Your task to perform on an android device: manage bookmarks in the chrome app Image 0: 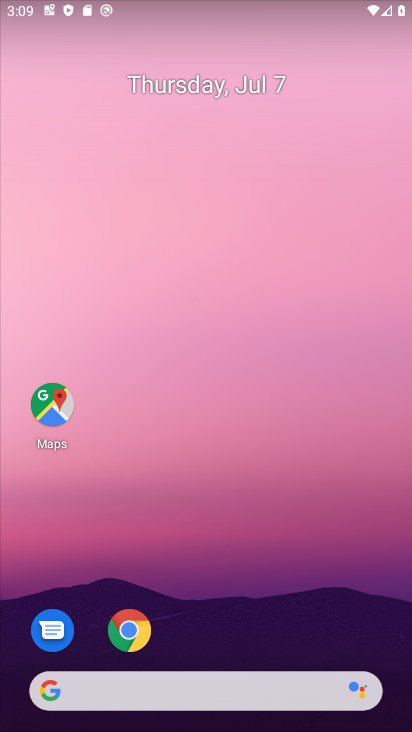
Step 0: click (132, 636)
Your task to perform on an android device: manage bookmarks in the chrome app Image 1: 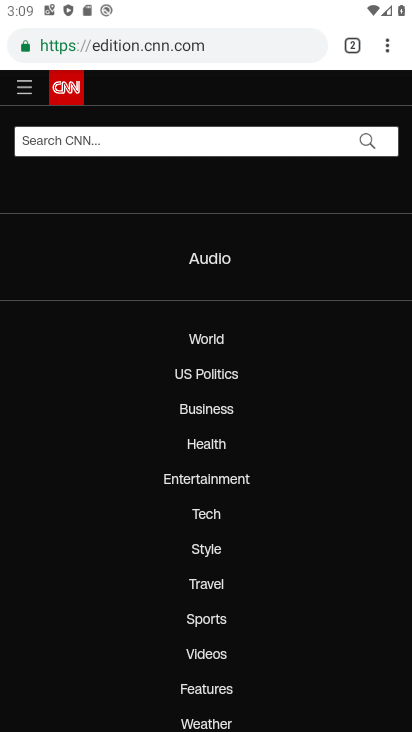
Step 1: click (383, 49)
Your task to perform on an android device: manage bookmarks in the chrome app Image 2: 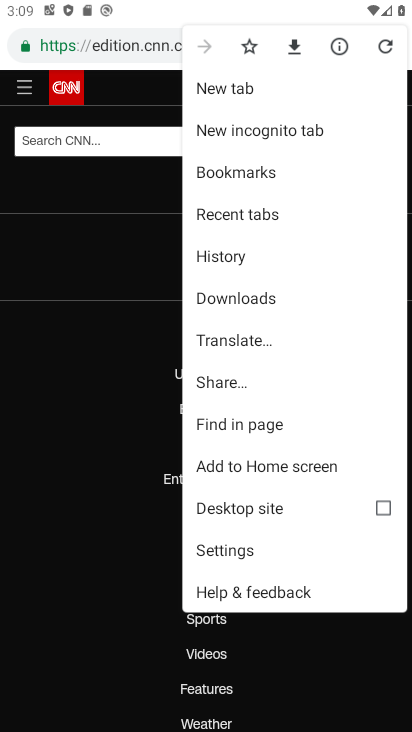
Step 2: click (249, 178)
Your task to perform on an android device: manage bookmarks in the chrome app Image 3: 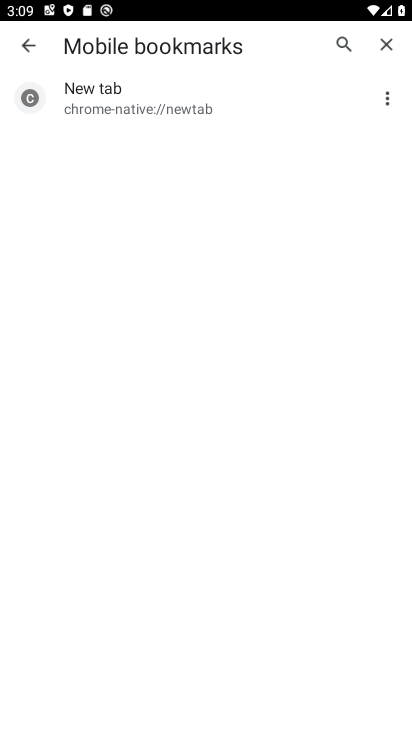
Step 3: click (383, 97)
Your task to perform on an android device: manage bookmarks in the chrome app Image 4: 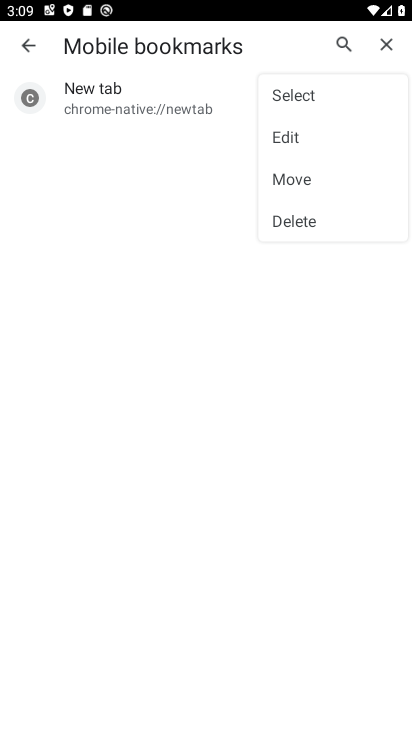
Step 4: click (288, 144)
Your task to perform on an android device: manage bookmarks in the chrome app Image 5: 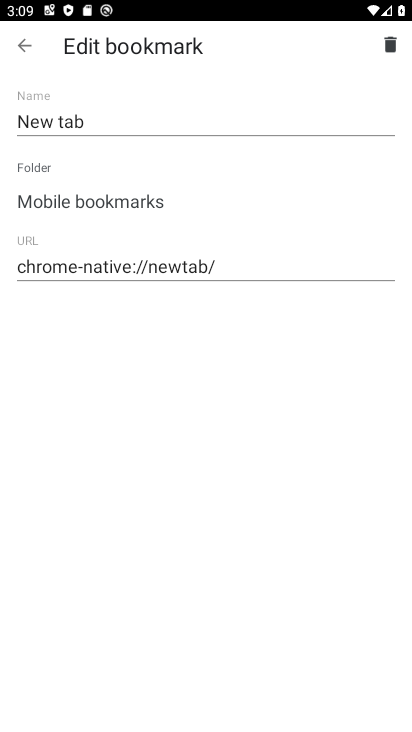
Step 5: click (31, 122)
Your task to perform on an android device: manage bookmarks in the chrome app Image 6: 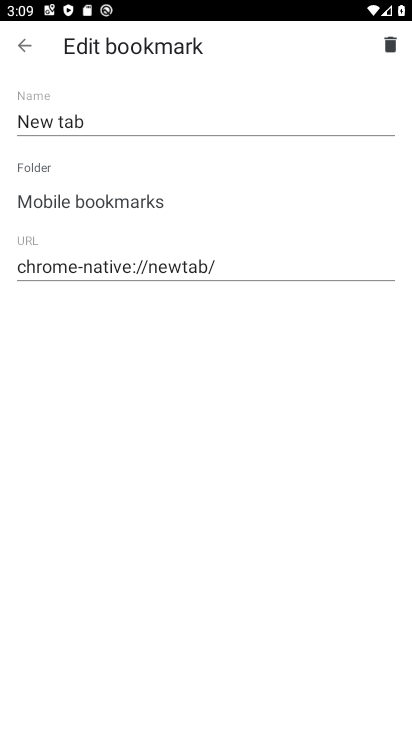
Step 6: click (31, 122)
Your task to perform on an android device: manage bookmarks in the chrome app Image 7: 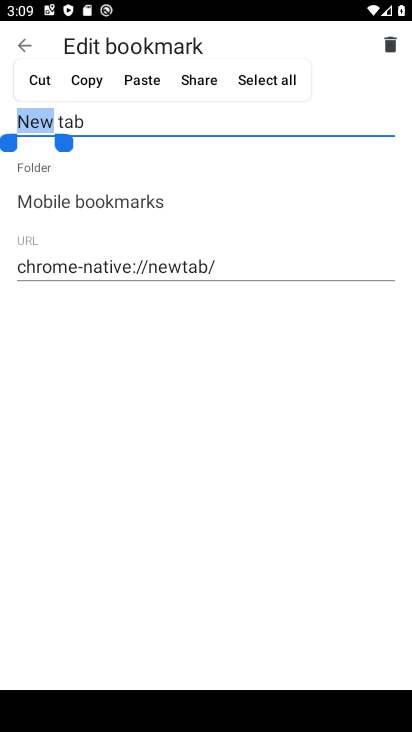
Step 7: type "refresh"
Your task to perform on an android device: manage bookmarks in the chrome app Image 8: 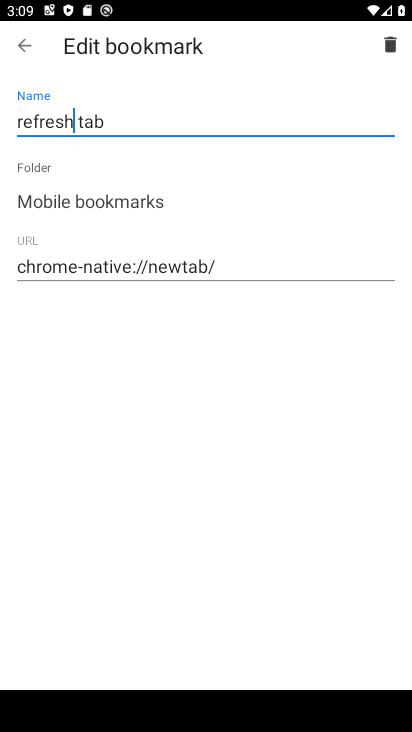
Step 8: click (20, 37)
Your task to perform on an android device: manage bookmarks in the chrome app Image 9: 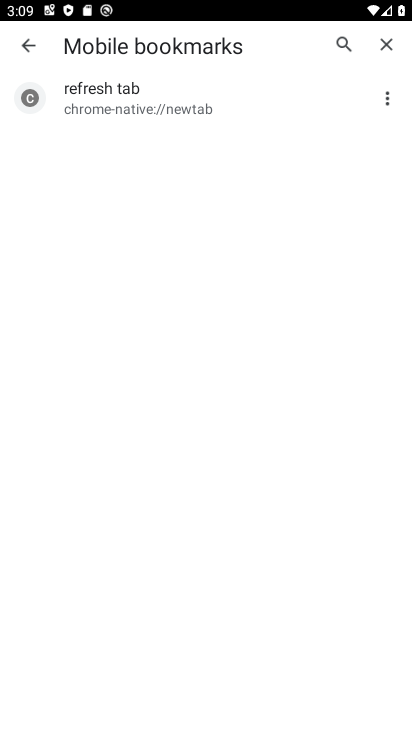
Step 9: task complete